Your task to perform on an android device: Go to accessibility settings Image 0: 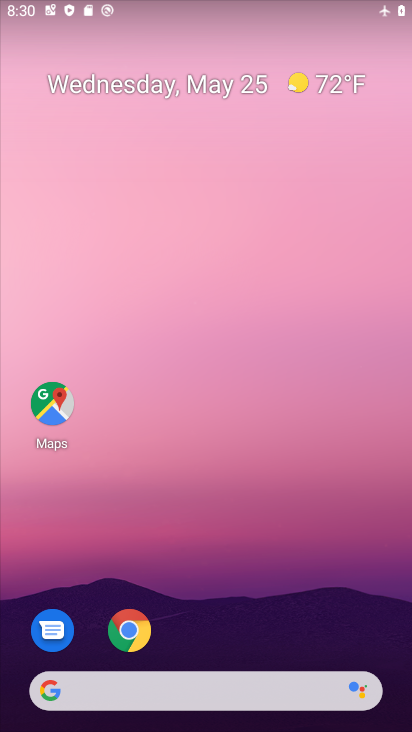
Step 0: drag from (210, 589) to (258, 234)
Your task to perform on an android device: Go to accessibility settings Image 1: 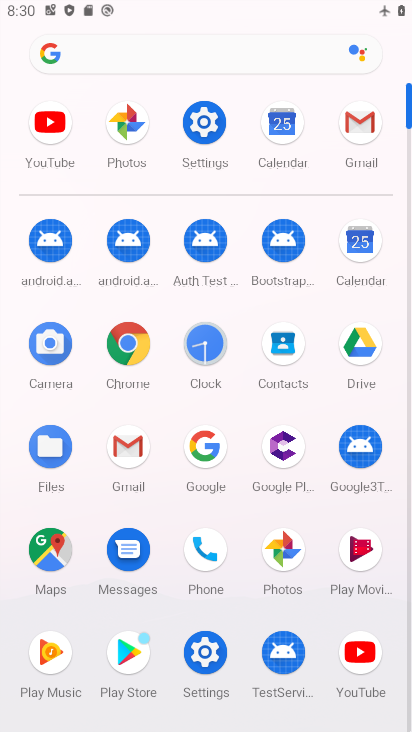
Step 1: click (216, 130)
Your task to perform on an android device: Go to accessibility settings Image 2: 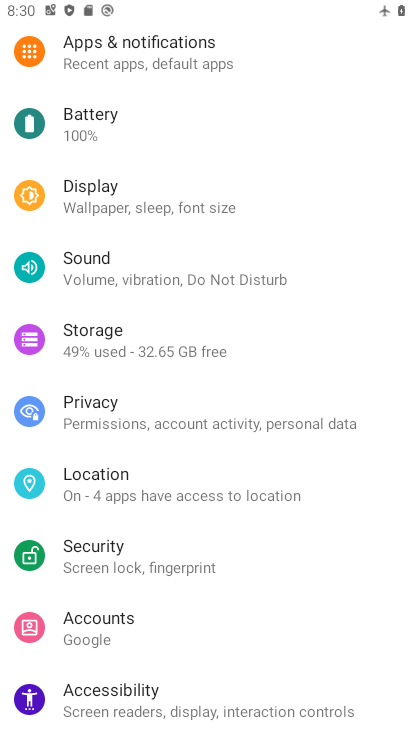
Step 2: click (164, 695)
Your task to perform on an android device: Go to accessibility settings Image 3: 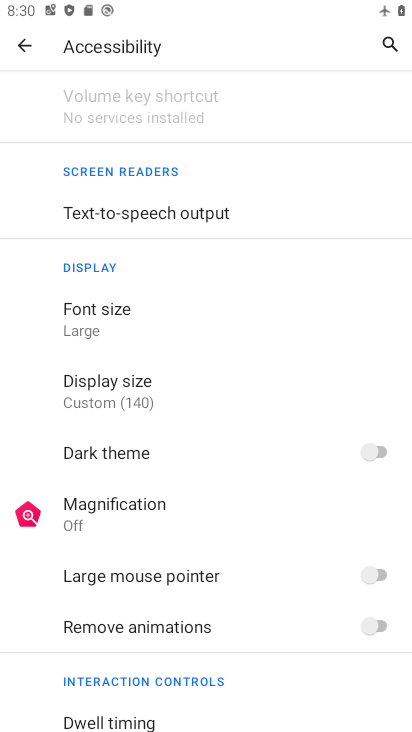
Step 3: task complete